Your task to perform on an android device: Open location settings Image 0: 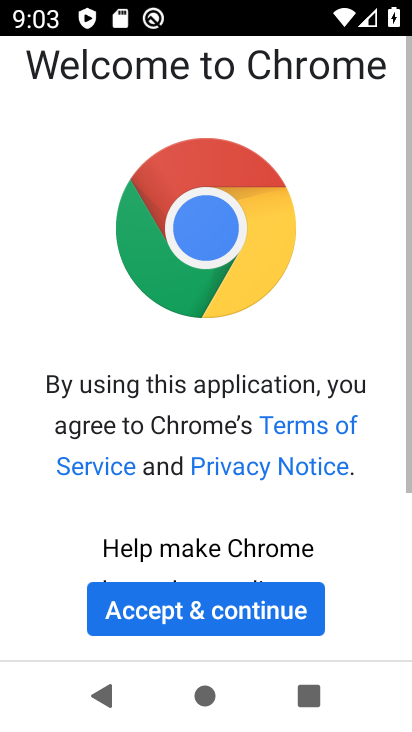
Step 0: press home button
Your task to perform on an android device: Open location settings Image 1: 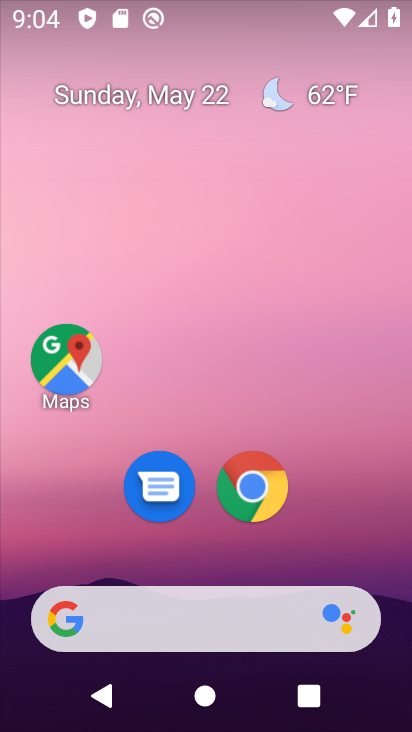
Step 1: drag from (202, 520) to (231, 77)
Your task to perform on an android device: Open location settings Image 2: 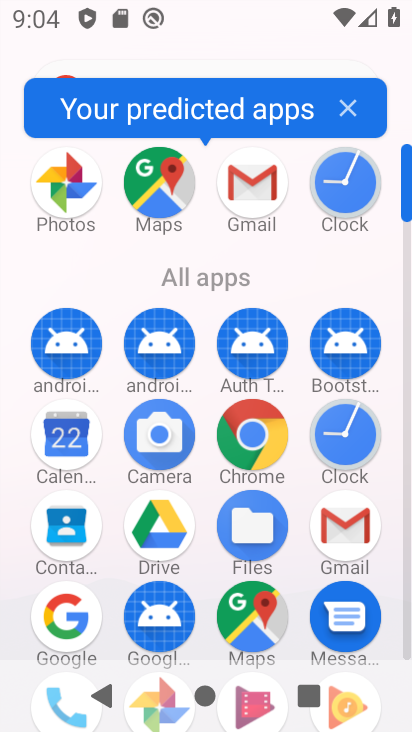
Step 2: drag from (203, 560) to (198, 110)
Your task to perform on an android device: Open location settings Image 3: 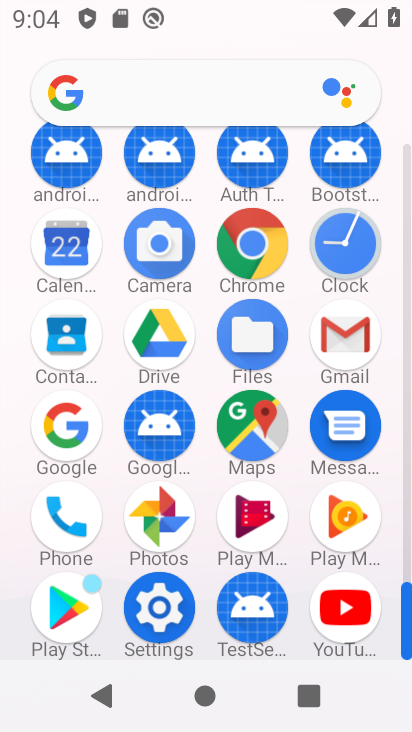
Step 3: click (158, 604)
Your task to perform on an android device: Open location settings Image 4: 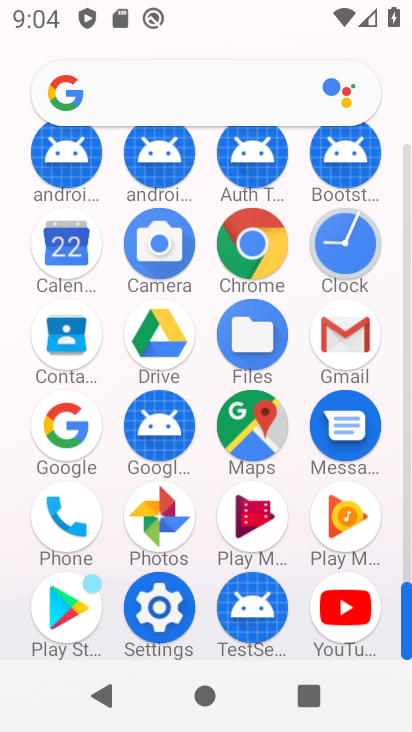
Step 4: click (157, 601)
Your task to perform on an android device: Open location settings Image 5: 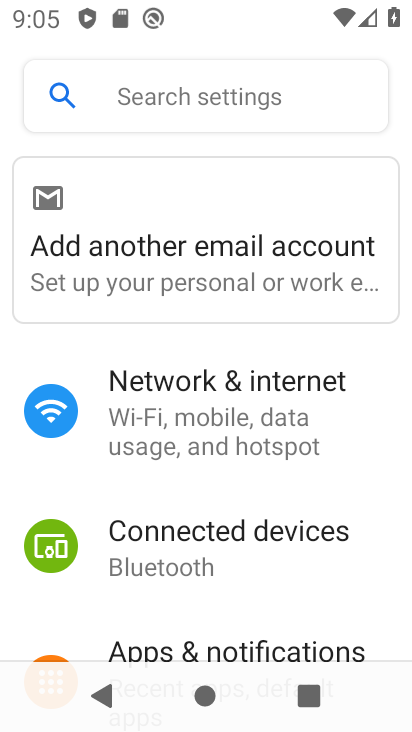
Step 5: drag from (240, 601) to (249, 223)
Your task to perform on an android device: Open location settings Image 6: 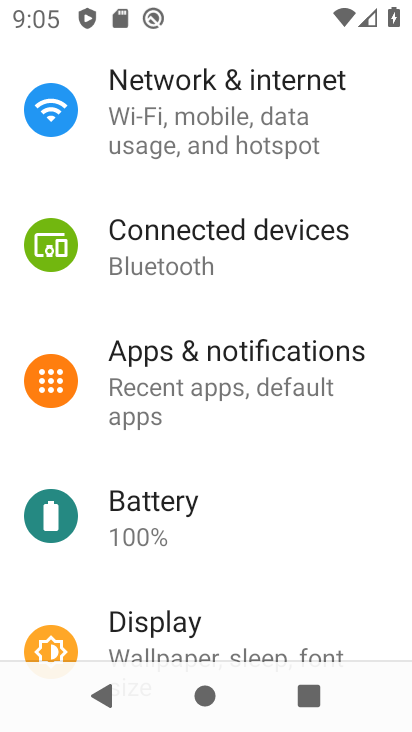
Step 6: drag from (235, 520) to (235, 168)
Your task to perform on an android device: Open location settings Image 7: 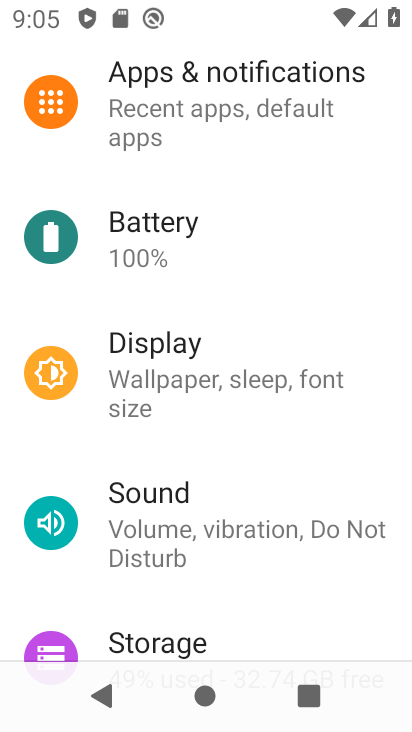
Step 7: drag from (213, 605) to (205, 76)
Your task to perform on an android device: Open location settings Image 8: 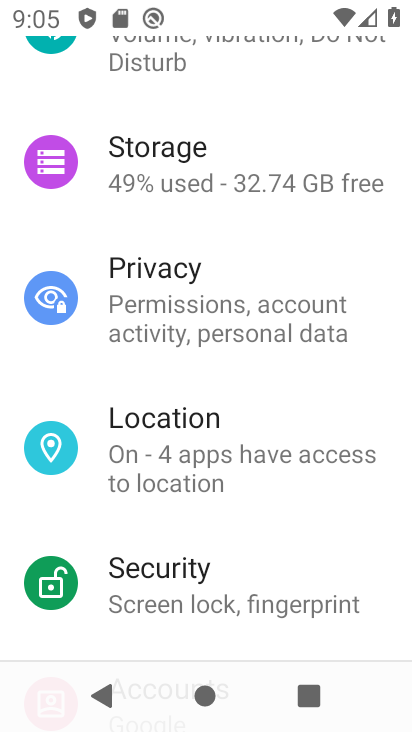
Step 8: click (231, 439)
Your task to perform on an android device: Open location settings Image 9: 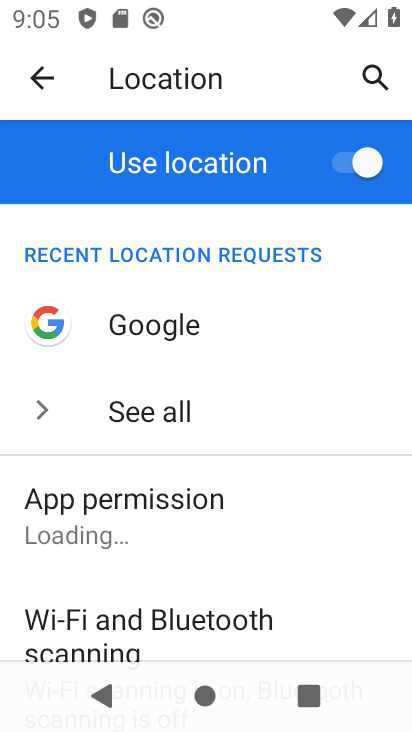
Step 9: drag from (188, 572) to (171, 256)
Your task to perform on an android device: Open location settings Image 10: 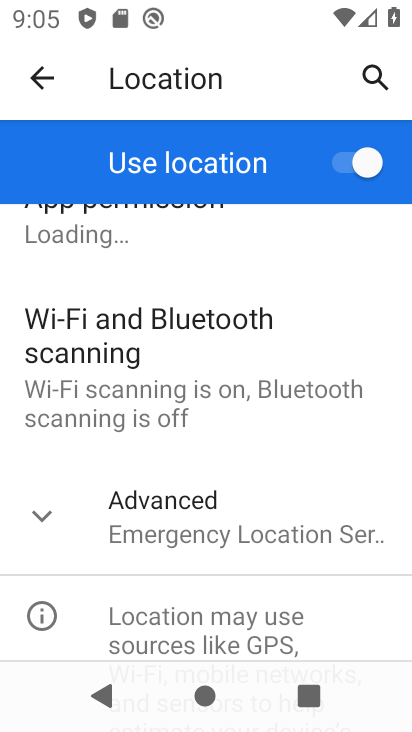
Step 10: click (45, 519)
Your task to perform on an android device: Open location settings Image 11: 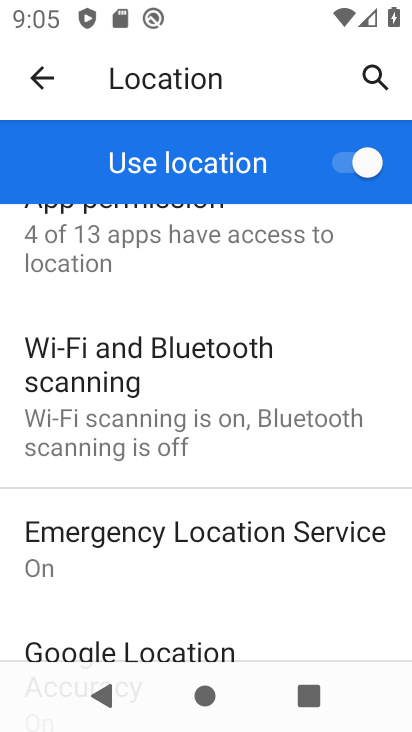
Step 11: task complete